Your task to perform on an android device: Go to calendar. Show me events next week Image 0: 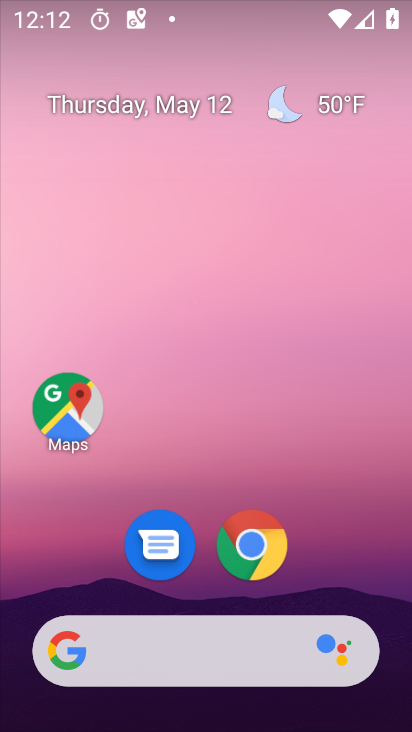
Step 0: drag from (208, 652) to (193, 172)
Your task to perform on an android device: Go to calendar. Show me events next week Image 1: 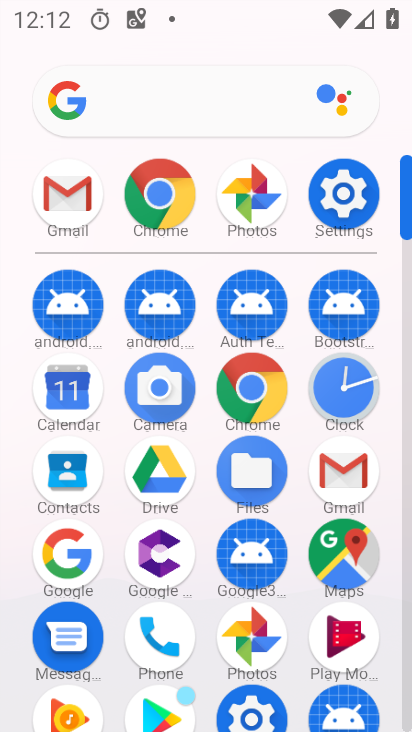
Step 1: click (87, 391)
Your task to perform on an android device: Go to calendar. Show me events next week Image 2: 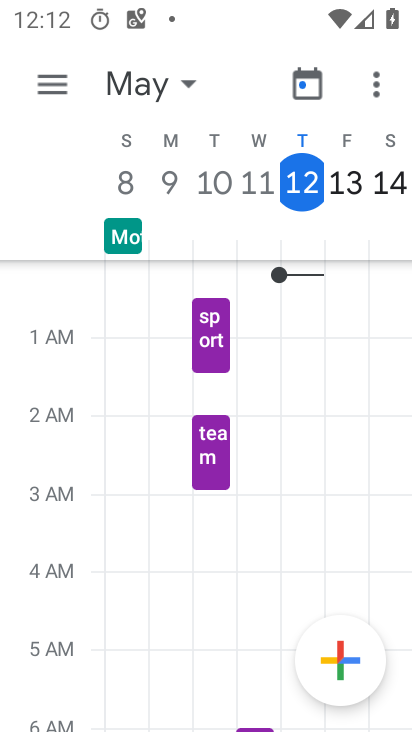
Step 2: task complete